Your task to perform on an android device: move an email to a new category in the gmail app Image 0: 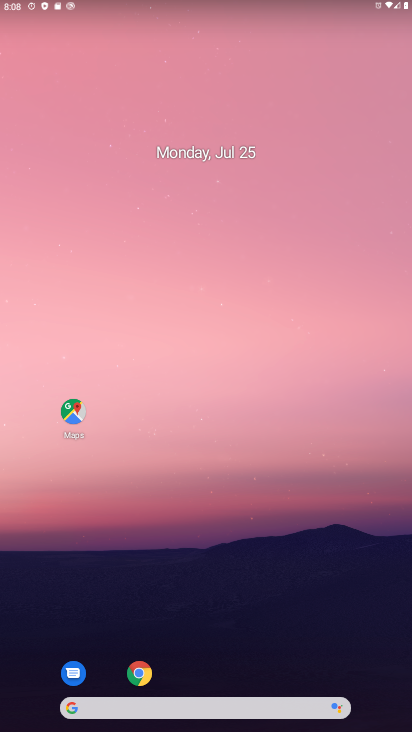
Step 0: drag from (344, 654) to (51, 60)
Your task to perform on an android device: move an email to a new category in the gmail app Image 1: 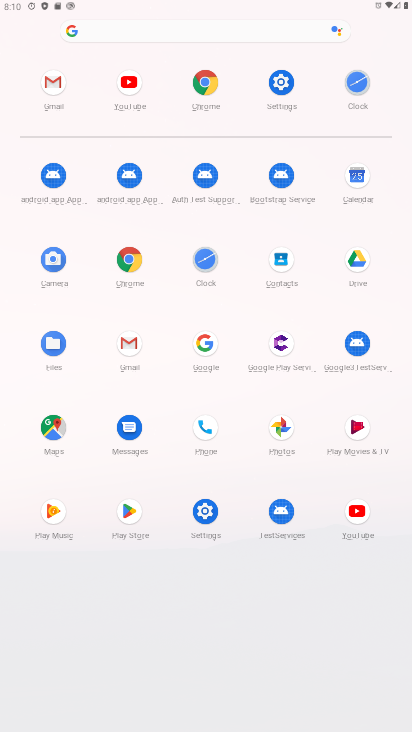
Step 1: click (126, 348)
Your task to perform on an android device: move an email to a new category in the gmail app Image 2: 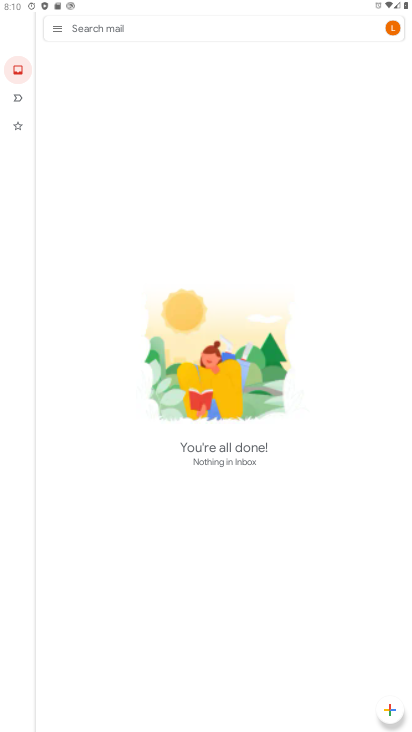
Step 2: task complete